Your task to perform on an android device: Show me popular games on the Play Store Image 0: 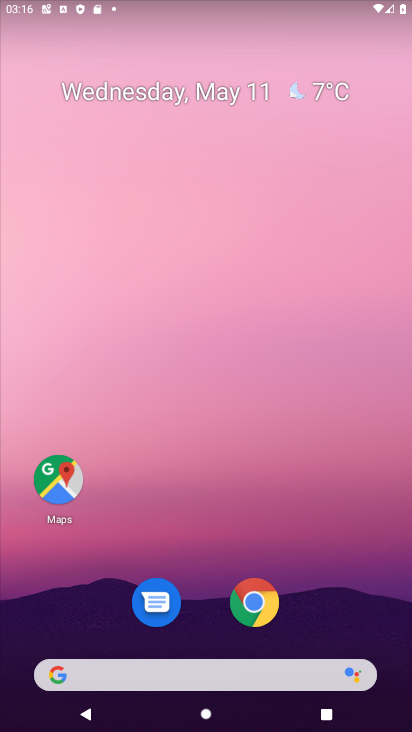
Step 0: drag from (326, 602) to (243, 278)
Your task to perform on an android device: Show me popular games on the Play Store Image 1: 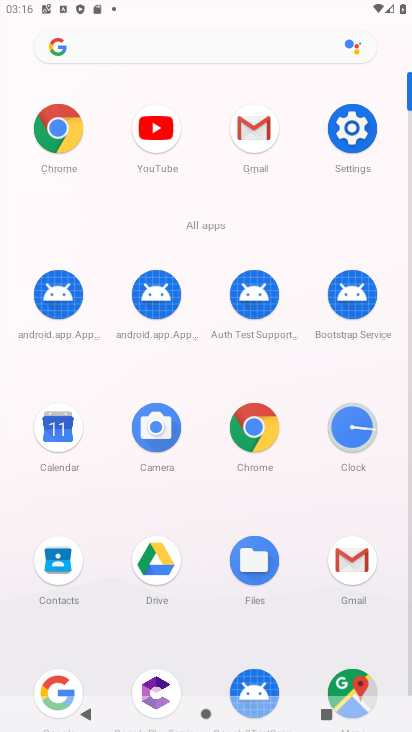
Step 1: drag from (221, 659) to (173, 315)
Your task to perform on an android device: Show me popular games on the Play Store Image 2: 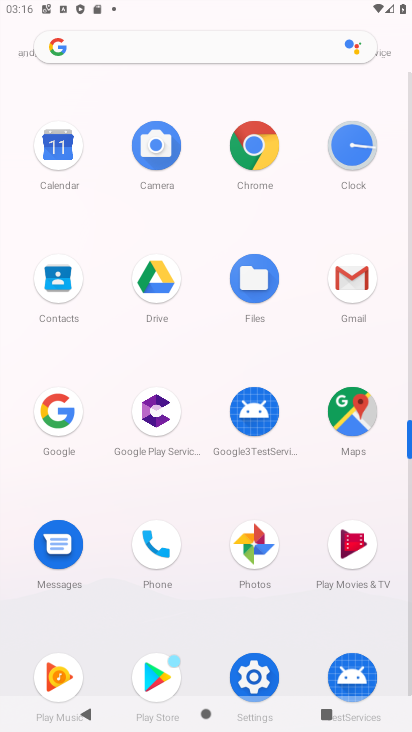
Step 2: click (162, 673)
Your task to perform on an android device: Show me popular games on the Play Store Image 3: 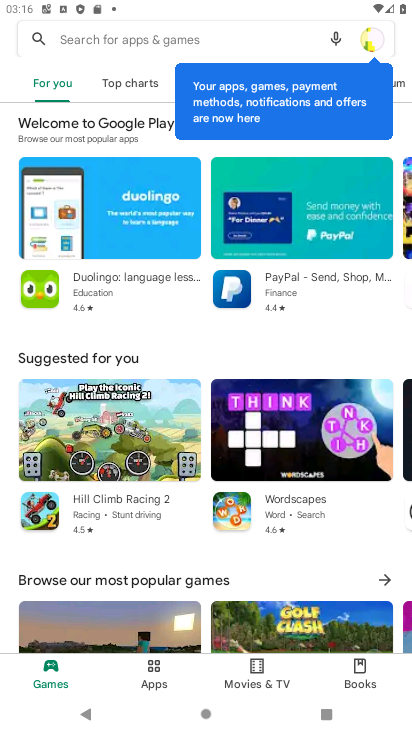
Step 3: click (83, 35)
Your task to perform on an android device: Show me popular games on the Play Store Image 4: 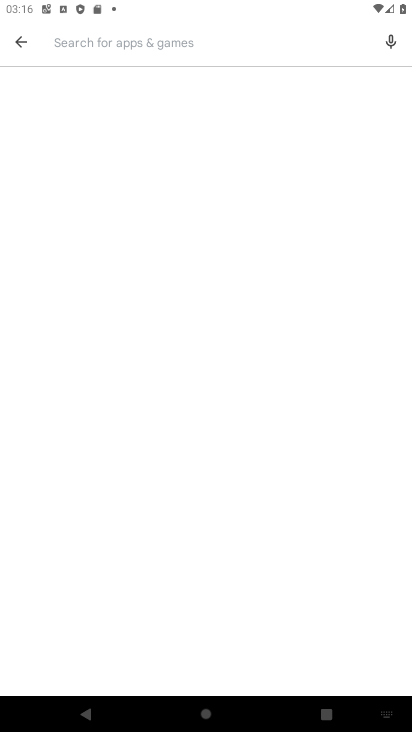
Step 4: type "popular game"
Your task to perform on an android device: Show me popular games on the Play Store Image 5: 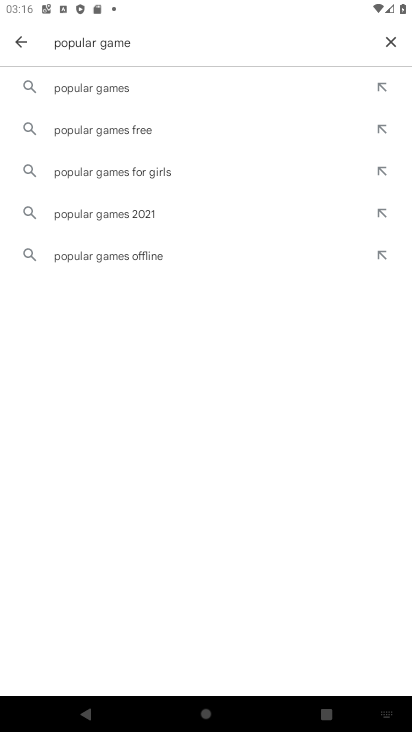
Step 5: click (254, 94)
Your task to perform on an android device: Show me popular games on the Play Store Image 6: 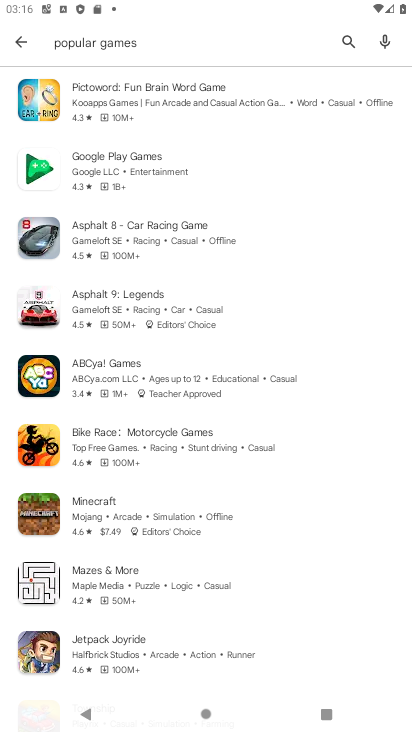
Step 6: task complete